Your task to perform on an android device: Go to wifi settings Image 0: 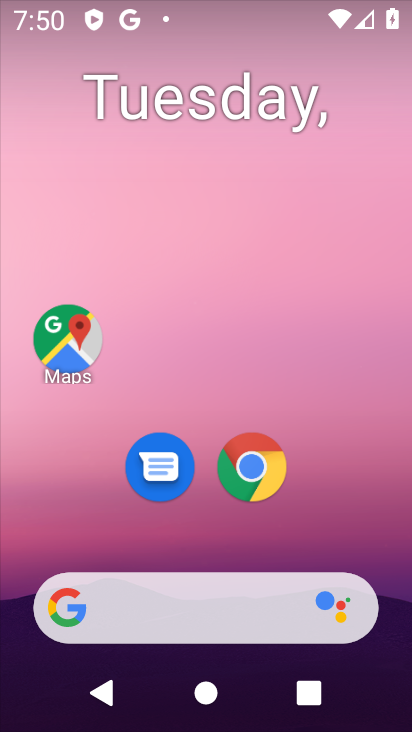
Step 0: drag from (288, 584) to (272, 0)
Your task to perform on an android device: Go to wifi settings Image 1: 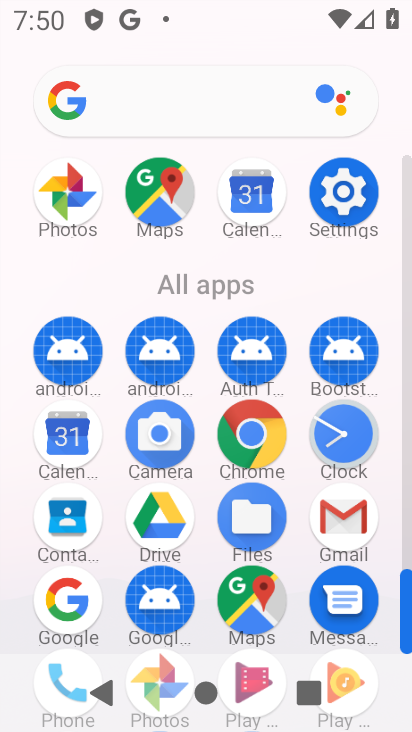
Step 1: click (323, 196)
Your task to perform on an android device: Go to wifi settings Image 2: 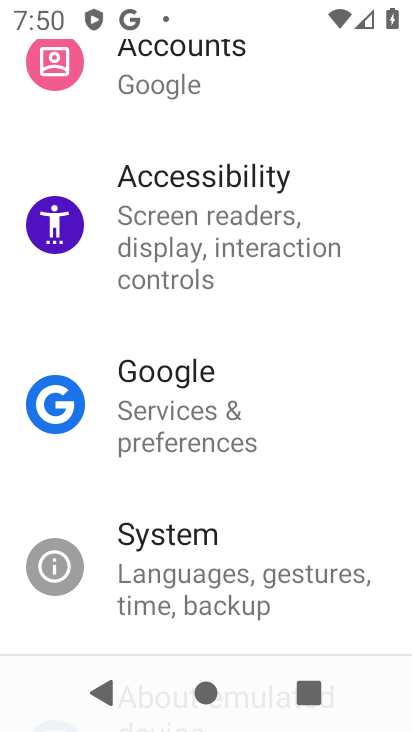
Step 2: drag from (293, 190) to (254, 692)
Your task to perform on an android device: Go to wifi settings Image 3: 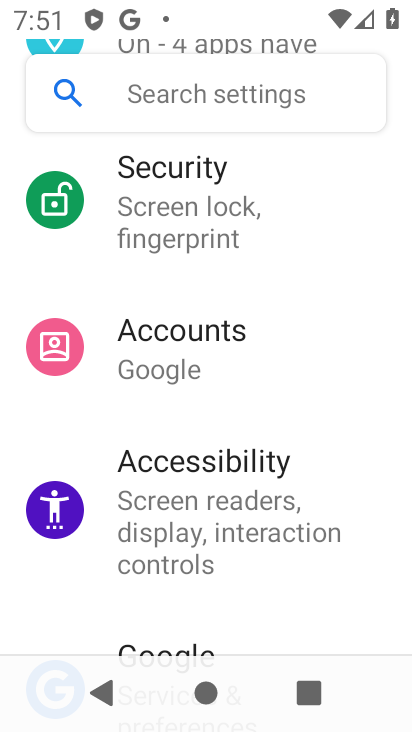
Step 3: drag from (313, 202) to (284, 731)
Your task to perform on an android device: Go to wifi settings Image 4: 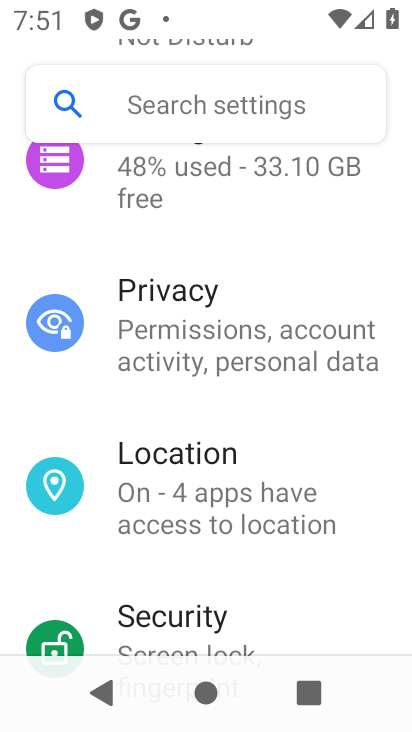
Step 4: drag from (292, 258) to (278, 723)
Your task to perform on an android device: Go to wifi settings Image 5: 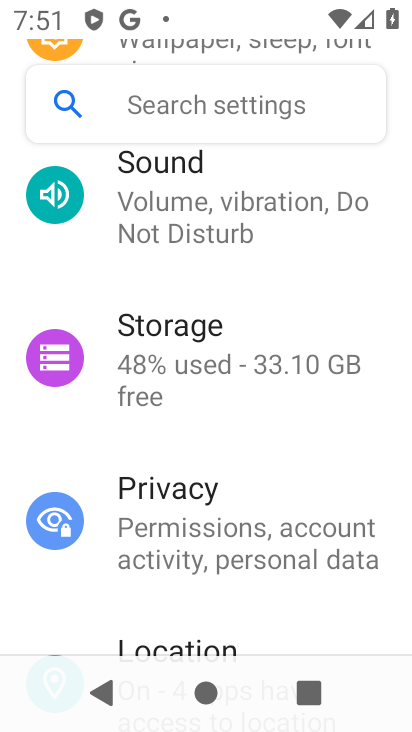
Step 5: drag from (311, 221) to (398, 721)
Your task to perform on an android device: Go to wifi settings Image 6: 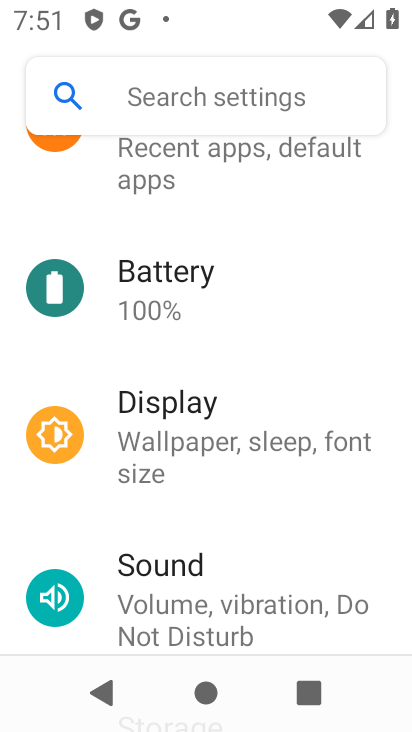
Step 6: drag from (342, 192) to (329, 713)
Your task to perform on an android device: Go to wifi settings Image 7: 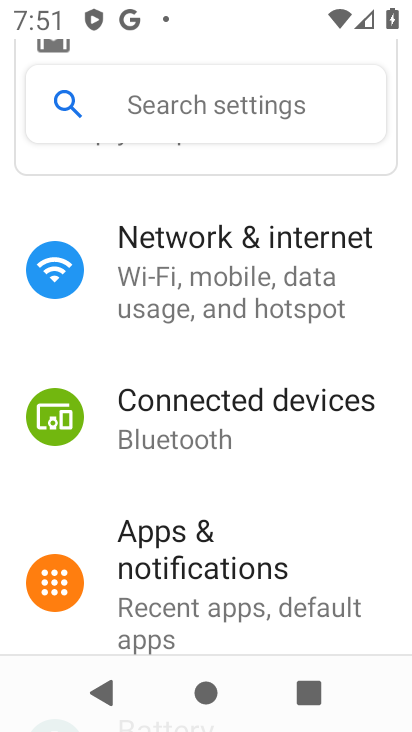
Step 7: click (286, 286)
Your task to perform on an android device: Go to wifi settings Image 8: 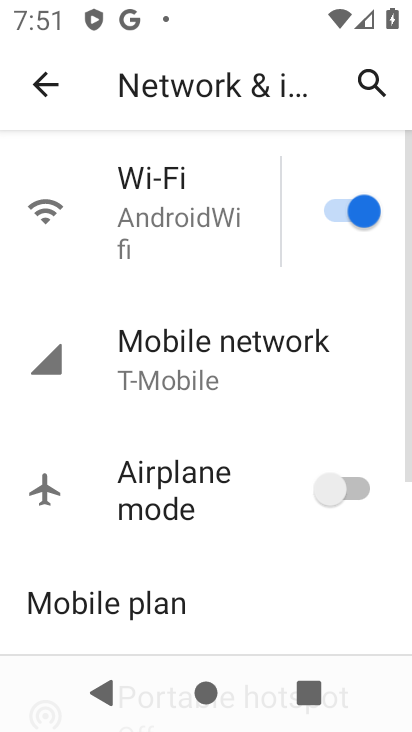
Step 8: click (151, 232)
Your task to perform on an android device: Go to wifi settings Image 9: 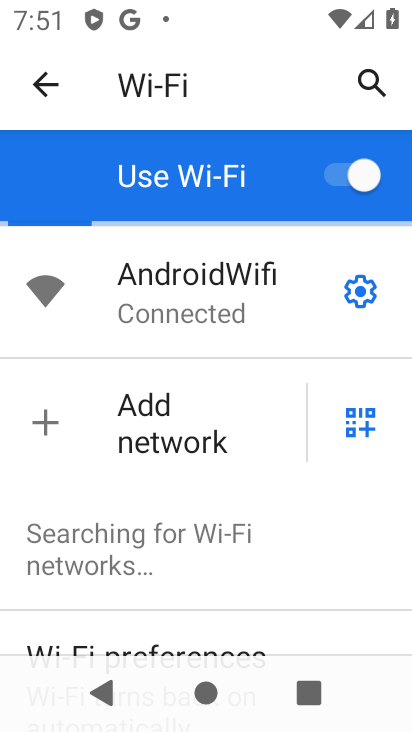
Step 9: task complete